Your task to perform on an android device: move a message to another label in the gmail app Image 0: 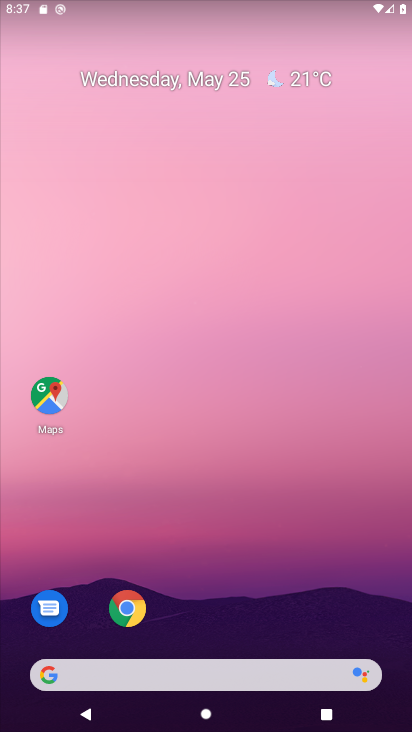
Step 0: drag from (175, 722) to (175, 33)
Your task to perform on an android device: move a message to another label in the gmail app Image 1: 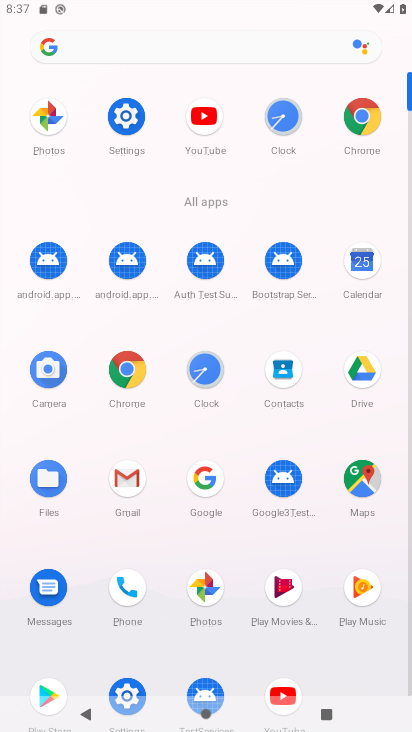
Step 1: click (125, 477)
Your task to perform on an android device: move a message to another label in the gmail app Image 2: 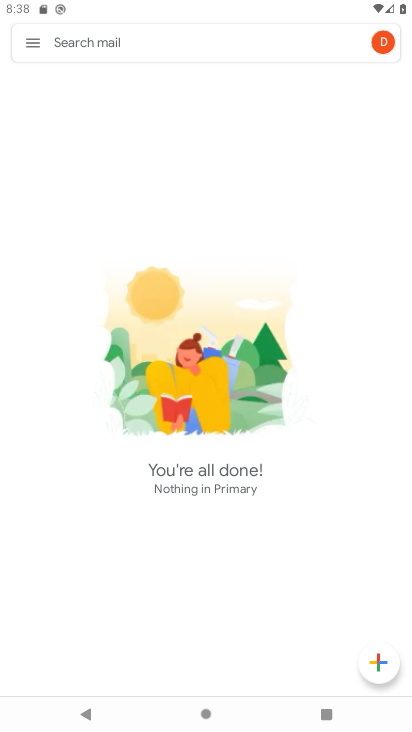
Step 2: task complete